Your task to perform on an android device: turn notification dots on Image 0: 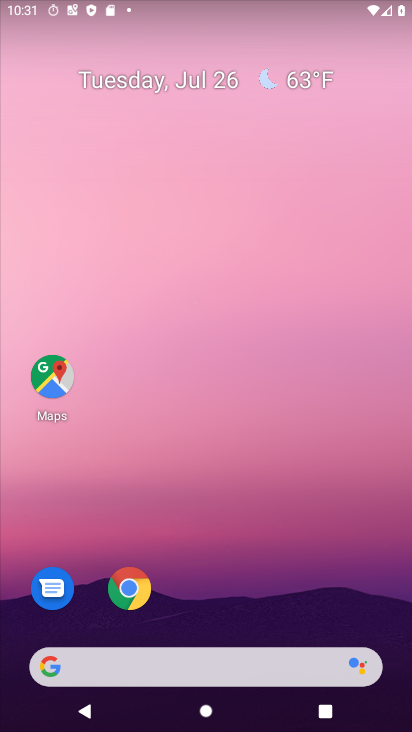
Step 0: drag from (247, 591) to (198, 516)
Your task to perform on an android device: turn notification dots on Image 1: 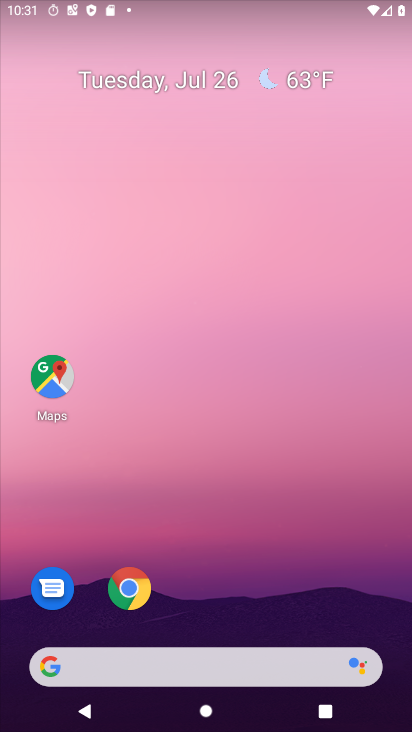
Step 1: drag from (193, 632) to (201, 152)
Your task to perform on an android device: turn notification dots on Image 2: 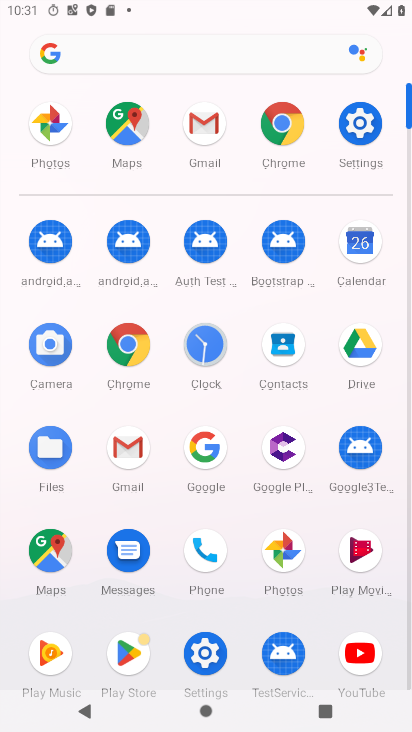
Step 2: click (357, 133)
Your task to perform on an android device: turn notification dots on Image 3: 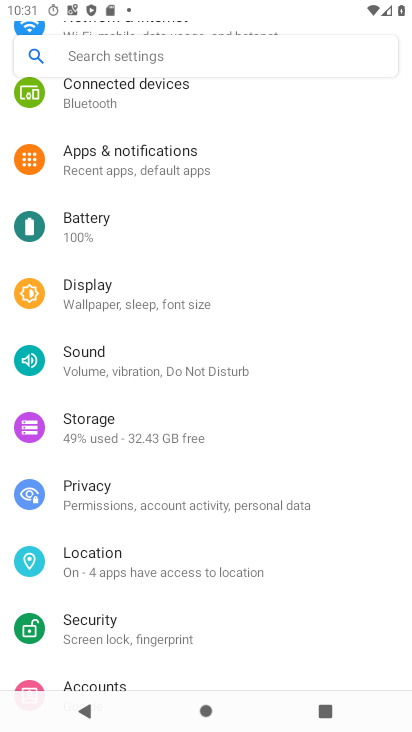
Step 3: click (108, 143)
Your task to perform on an android device: turn notification dots on Image 4: 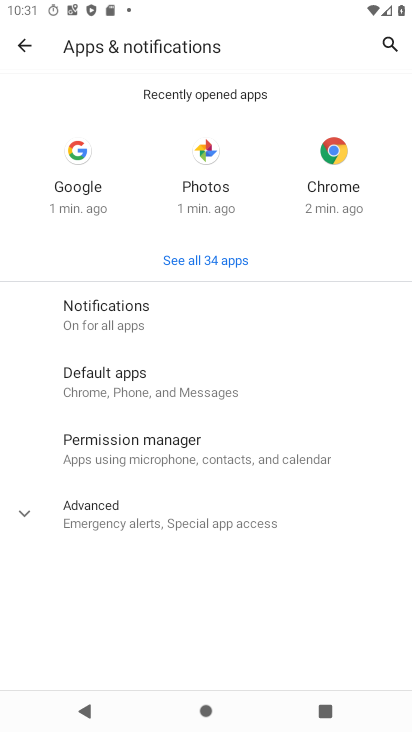
Step 4: click (46, 295)
Your task to perform on an android device: turn notification dots on Image 5: 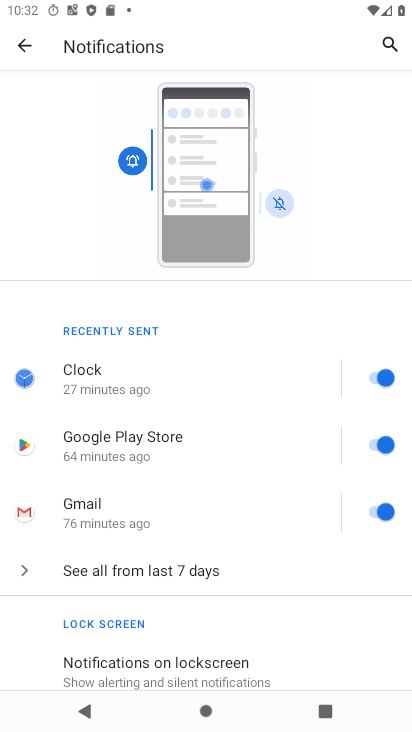
Step 5: drag from (190, 615) to (221, 128)
Your task to perform on an android device: turn notification dots on Image 6: 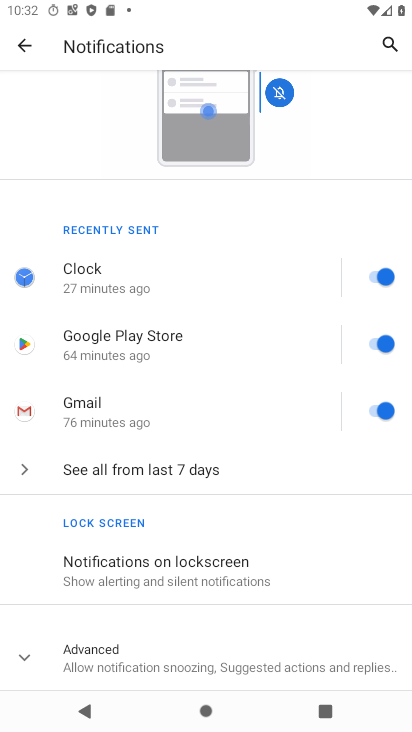
Step 6: click (255, 586)
Your task to perform on an android device: turn notification dots on Image 7: 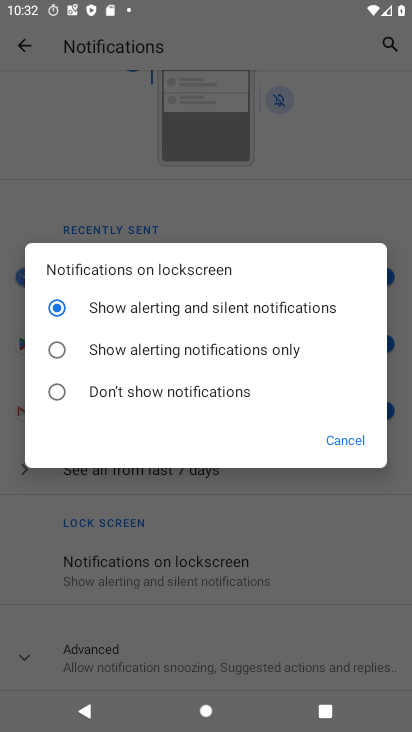
Step 7: click (256, 607)
Your task to perform on an android device: turn notification dots on Image 8: 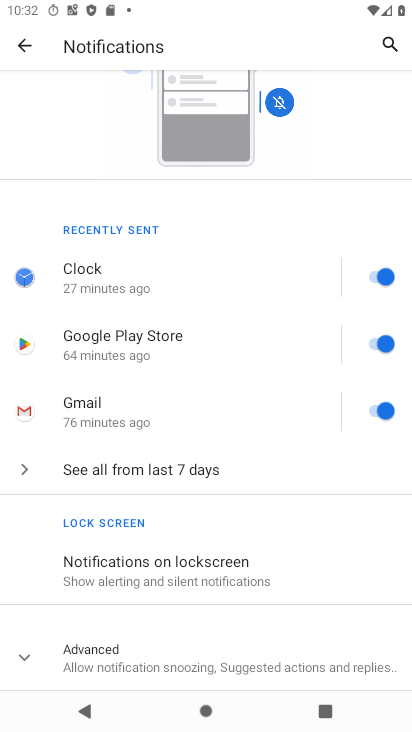
Step 8: click (264, 623)
Your task to perform on an android device: turn notification dots on Image 9: 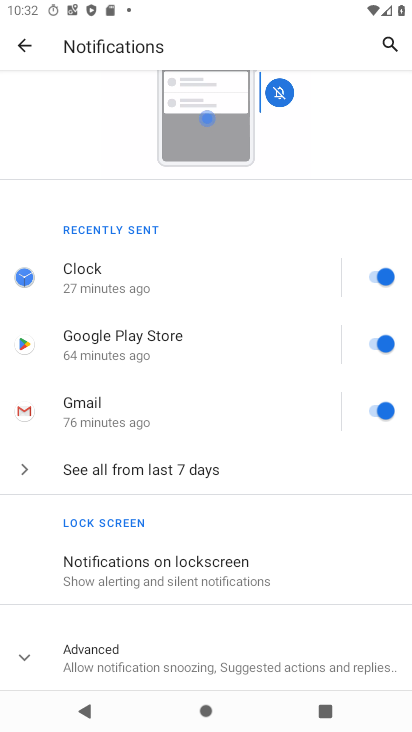
Step 9: click (150, 657)
Your task to perform on an android device: turn notification dots on Image 10: 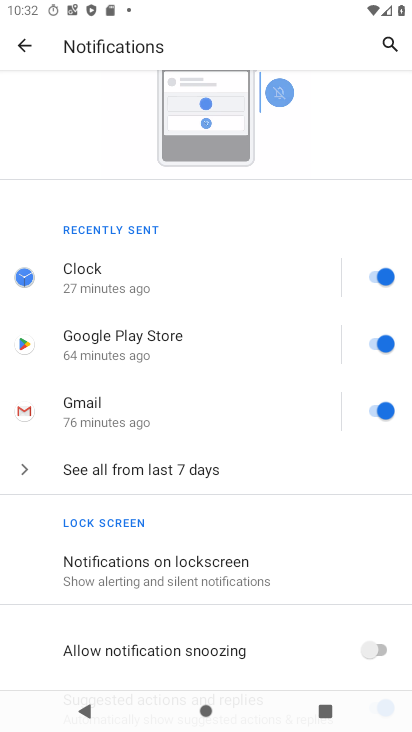
Step 10: task complete